Your task to perform on an android device: Play the latest video from the BBC Image 0: 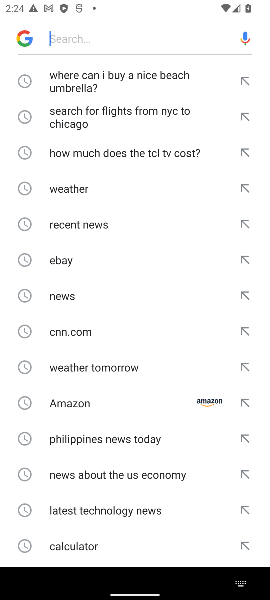
Step 0: press home button
Your task to perform on an android device: Play the latest video from the BBC Image 1: 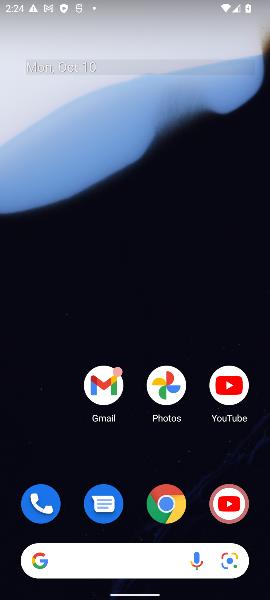
Step 1: click (237, 512)
Your task to perform on an android device: Play the latest video from the BBC Image 2: 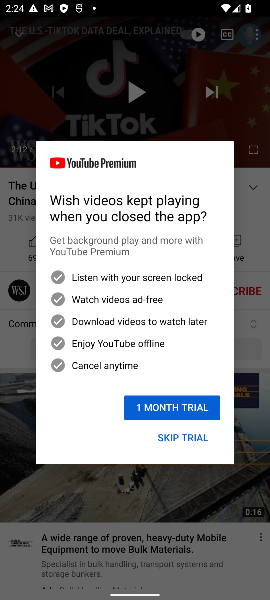
Step 2: click (175, 441)
Your task to perform on an android device: Play the latest video from the BBC Image 3: 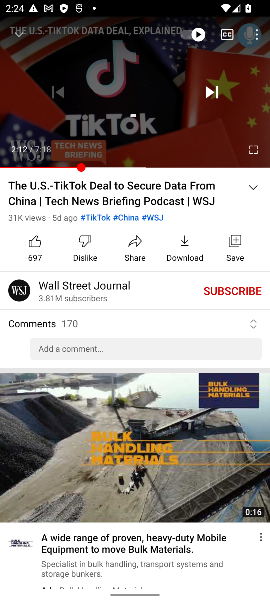
Step 3: drag from (114, 114) to (159, 417)
Your task to perform on an android device: Play the latest video from the BBC Image 4: 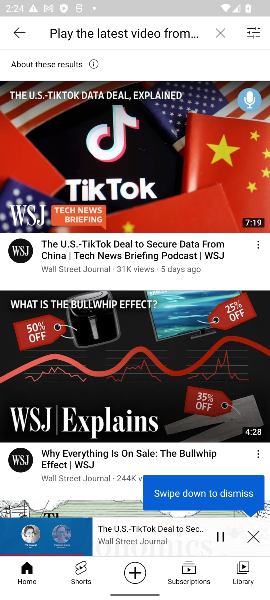
Step 4: click (220, 36)
Your task to perform on an android device: Play the latest video from the BBC Image 5: 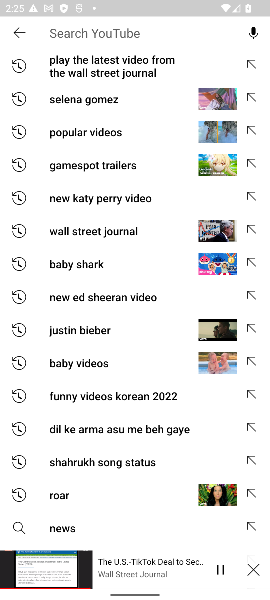
Step 5: type "Play the latest video from the BBC"
Your task to perform on an android device: Play the latest video from the BBC Image 6: 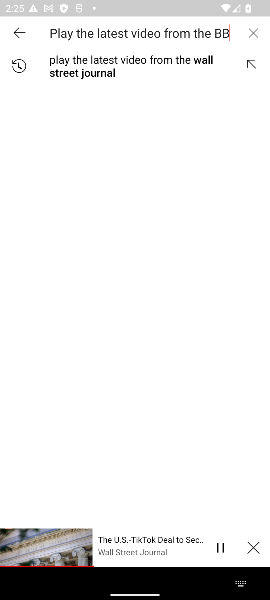
Step 6: press enter
Your task to perform on an android device: Play the latest video from the BBC Image 7: 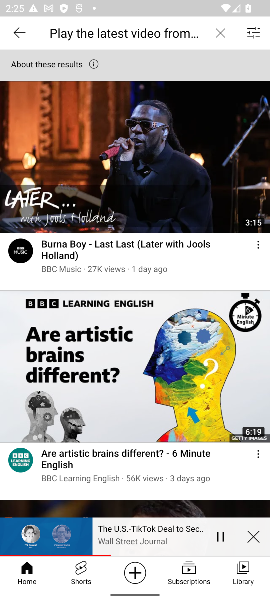
Step 7: drag from (155, 337) to (144, 285)
Your task to perform on an android device: Play the latest video from the BBC Image 8: 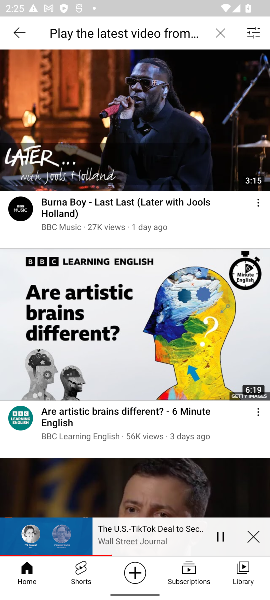
Step 8: click (111, 140)
Your task to perform on an android device: Play the latest video from the BBC Image 9: 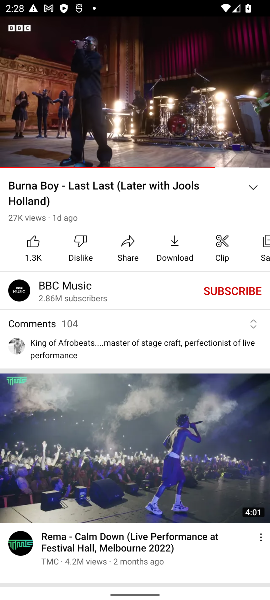
Step 9: task complete